Your task to perform on an android device: Open Google Chrome and open the bookmarks view Image 0: 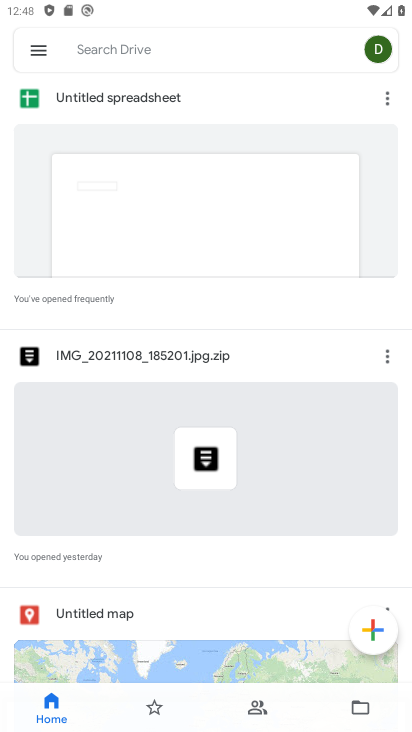
Step 0: press home button
Your task to perform on an android device: Open Google Chrome and open the bookmarks view Image 1: 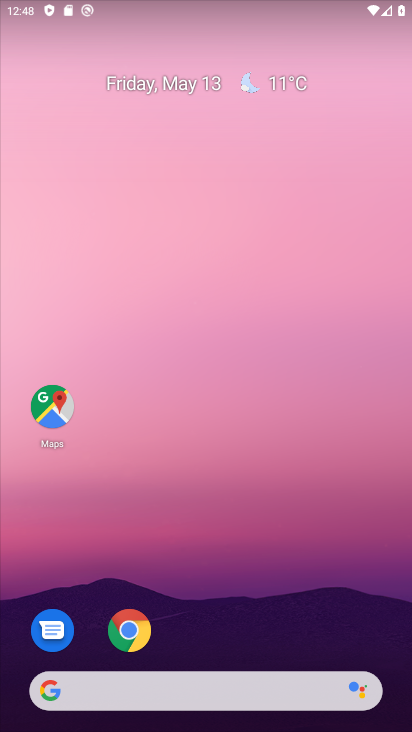
Step 1: click (124, 631)
Your task to perform on an android device: Open Google Chrome and open the bookmarks view Image 2: 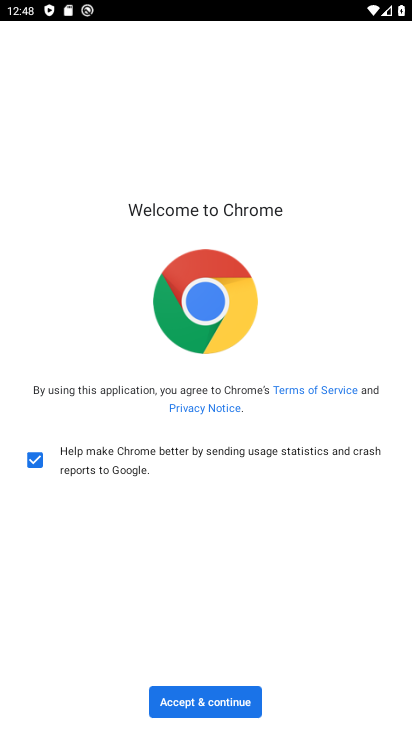
Step 2: click (170, 702)
Your task to perform on an android device: Open Google Chrome and open the bookmarks view Image 3: 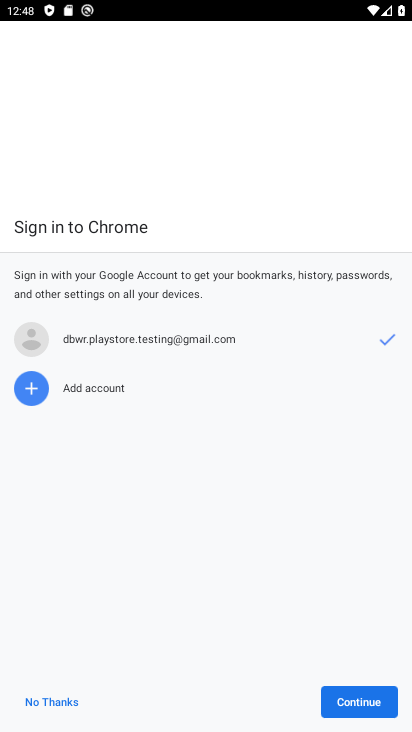
Step 3: click (367, 700)
Your task to perform on an android device: Open Google Chrome and open the bookmarks view Image 4: 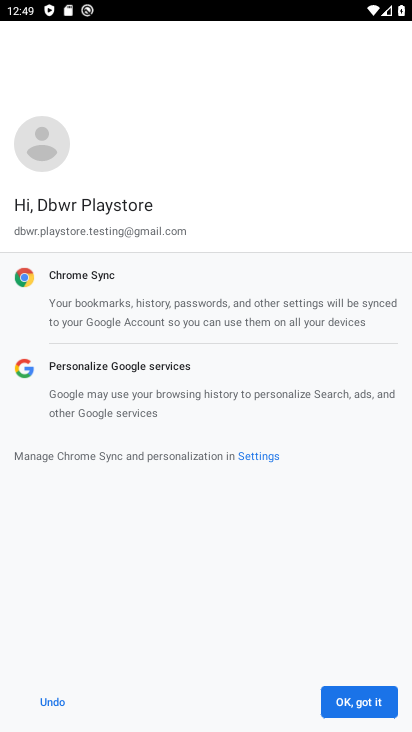
Step 4: click (342, 702)
Your task to perform on an android device: Open Google Chrome and open the bookmarks view Image 5: 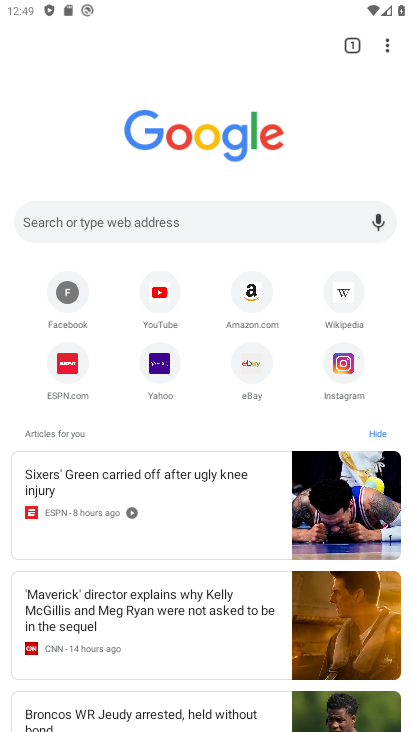
Step 5: task complete